Your task to perform on an android device: Open my contact list Image 0: 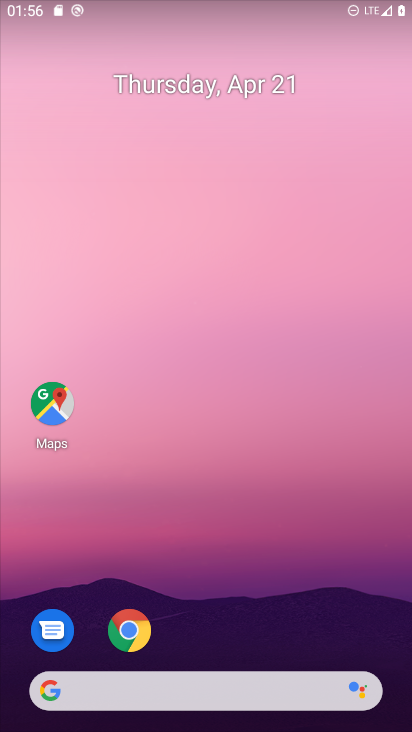
Step 0: drag from (301, 651) to (220, 195)
Your task to perform on an android device: Open my contact list Image 1: 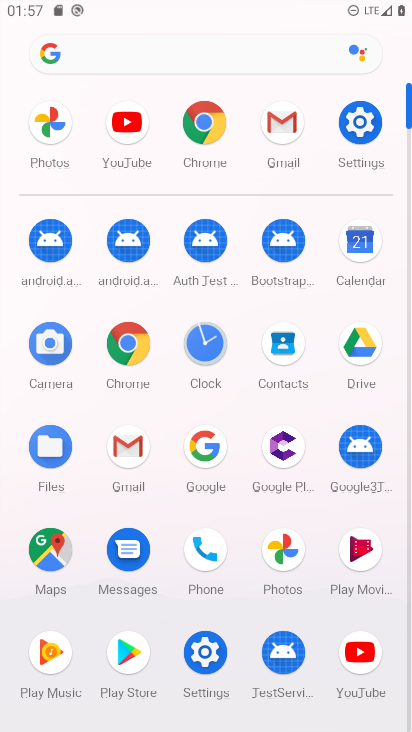
Step 1: click (284, 341)
Your task to perform on an android device: Open my contact list Image 2: 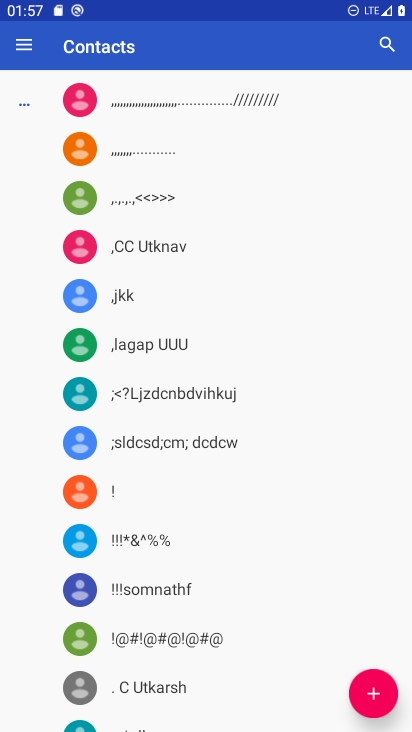
Step 2: task complete